Your task to perform on an android device: turn off location Image 0: 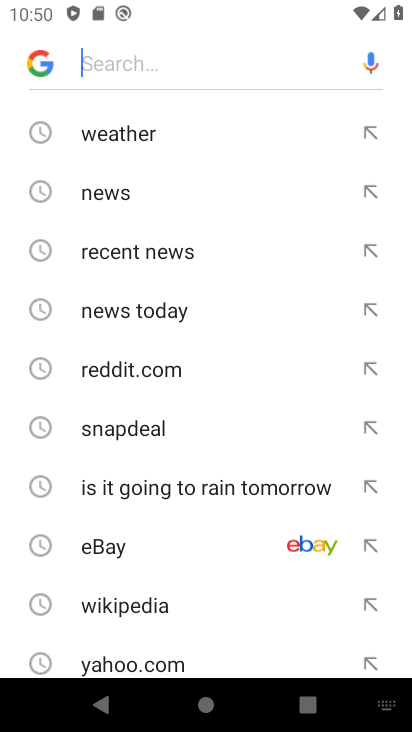
Step 0: press home button
Your task to perform on an android device: turn off location Image 1: 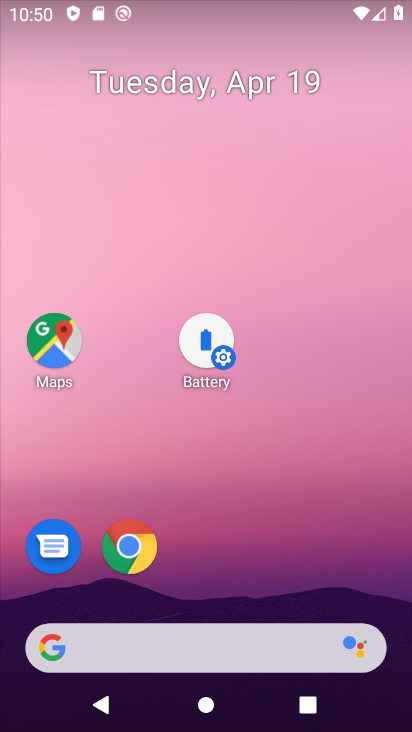
Step 1: drag from (203, 563) to (283, 27)
Your task to perform on an android device: turn off location Image 2: 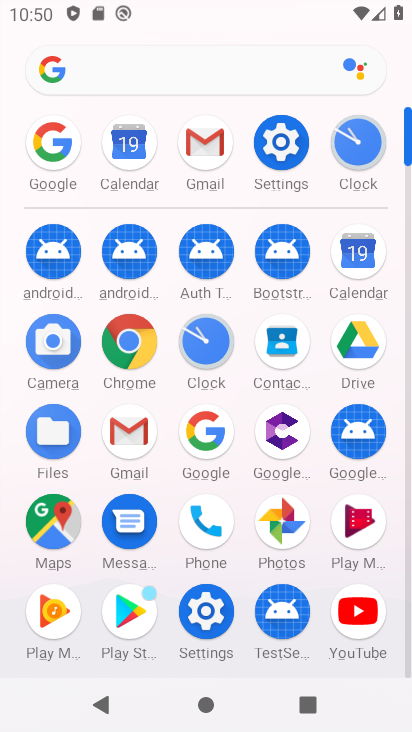
Step 2: click (279, 142)
Your task to perform on an android device: turn off location Image 3: 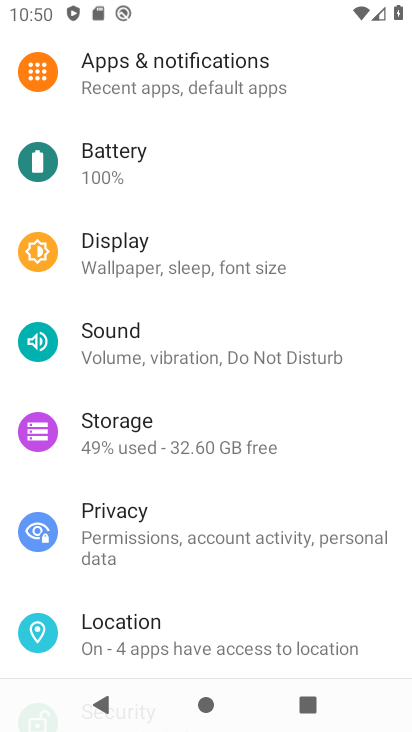
Step 3: click (116, 638)
Your task to perform on an android device: turn off location Image 4: 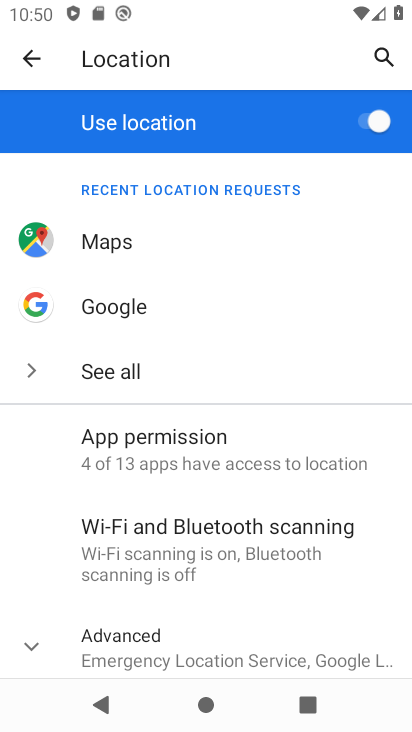
Step 4: click (373, 115)
Your task to perform on an android device: turn off location Image 5: 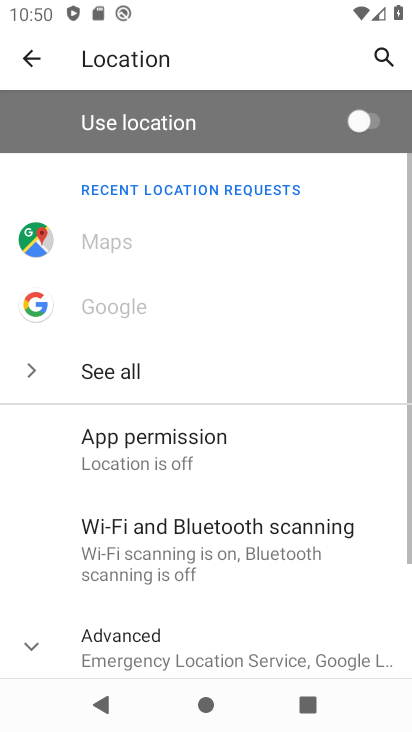
Step 5: task complete